Your task to perform on an android device: Open the map Image 0: 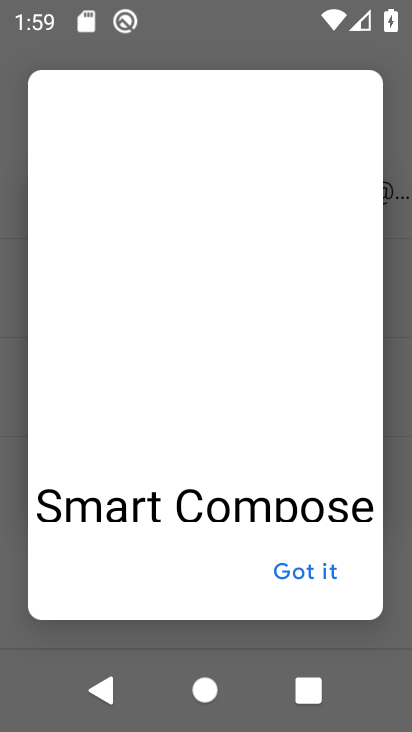
Step 0: press home button
Your task to perform on an android device: Open the map Image 1: 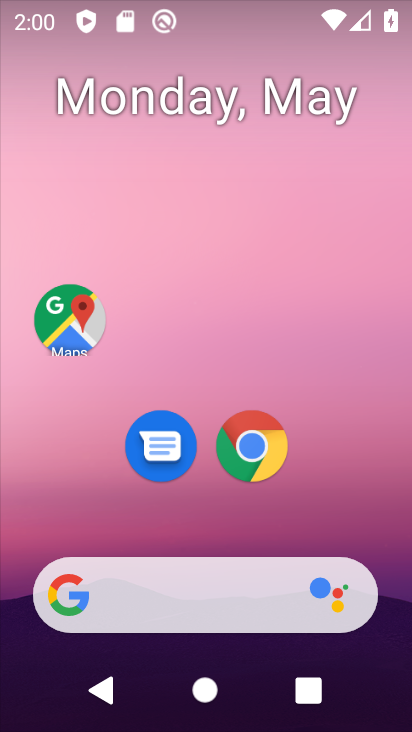
Step 1: click (69, 310)
Your task to perform on an android device: Open the map Image 2: 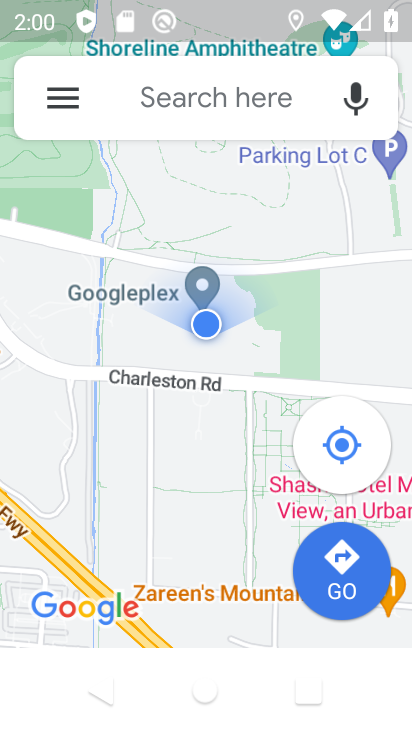
Step 2: task complete